Your task to perform on an android device: all mails in gmail Image 0: 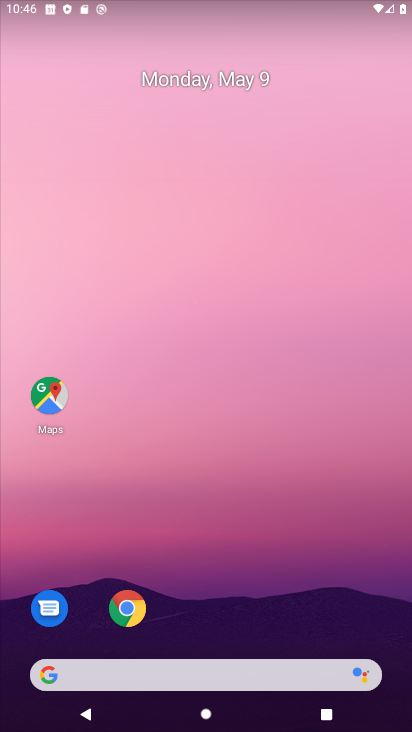
Step 0: drag from (181, 638) to (300, 29)
Your task to perform on an android device: all mails in gmail Image 1: 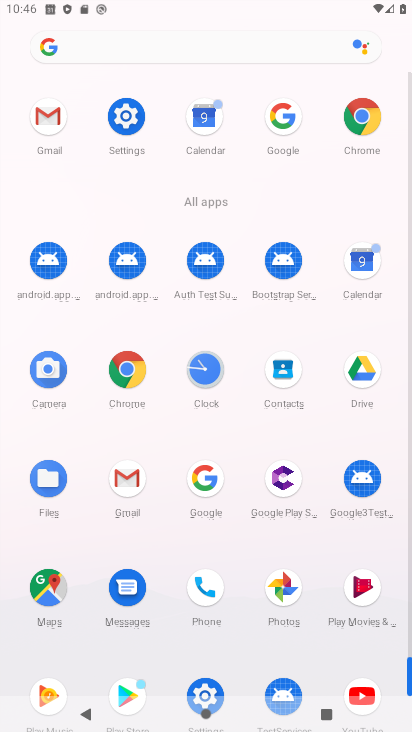
Step 1: click (127, 481)
Your task to perform on an android device: all mails in gmail Image 2: 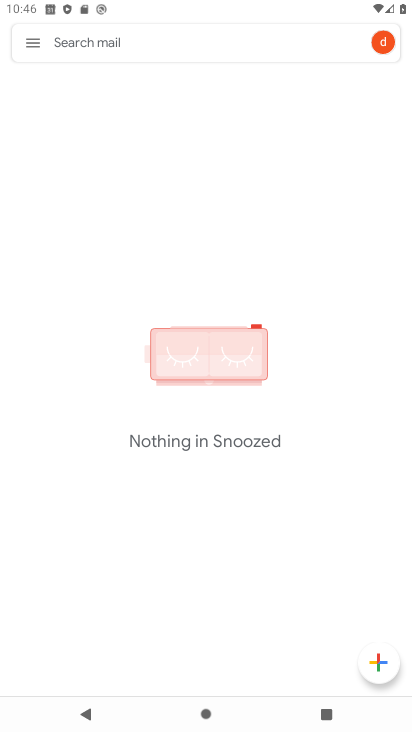
Step 2: click (34, 33)
Your task to perform on an android device: all mails in gmail Image 3: 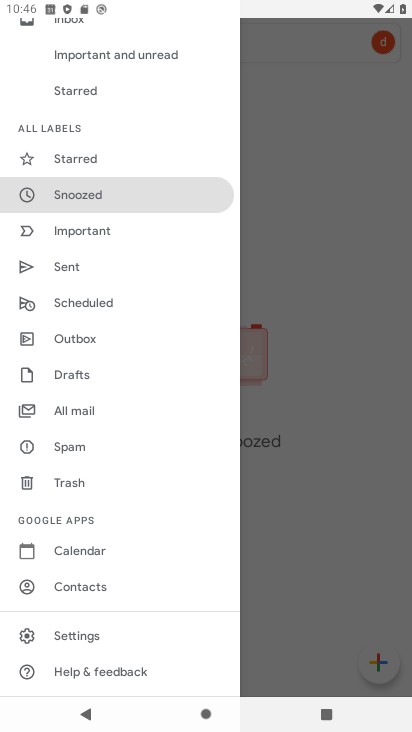
Step 3: click (91, 415)
Your task to perform on an android device: all mails in gmail Image 4: 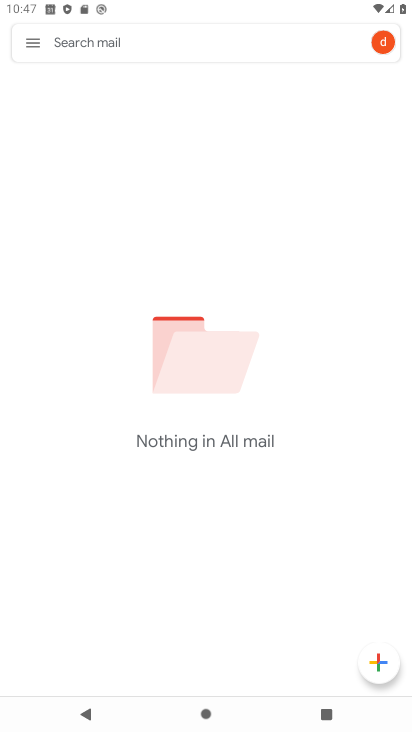
Step 4: task complete